Your task to perform on an android device: change the upload size in google photos Image 0: 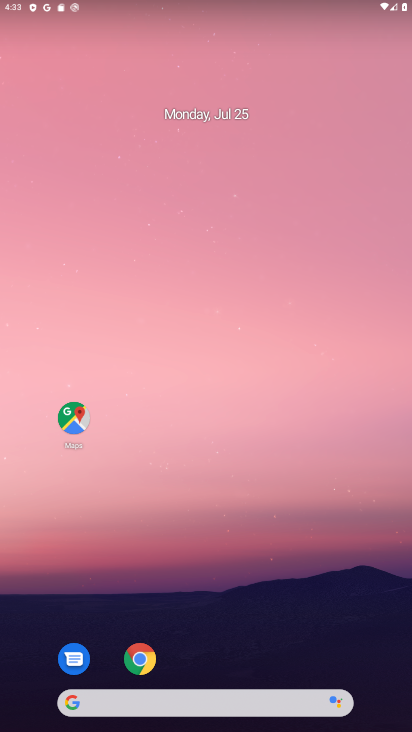
Step 0: drag from (201, 530) to (336, 138)
Your task to perform on an android device: change the upload size in google photos Image 1: 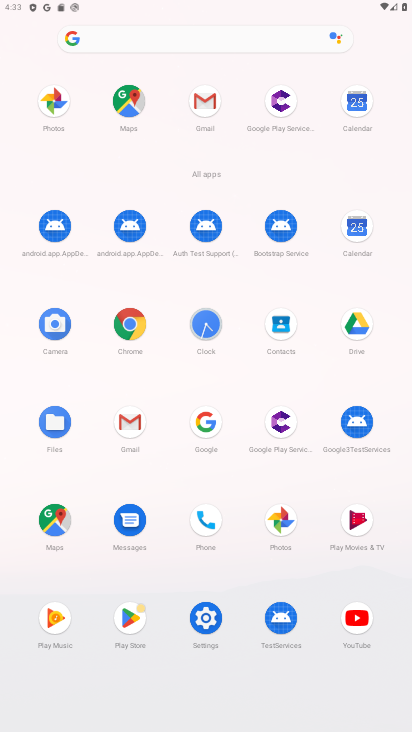
Step 1: click (273, 519)
Your task to perform on an android device: change the upload size in google photos Image 2: 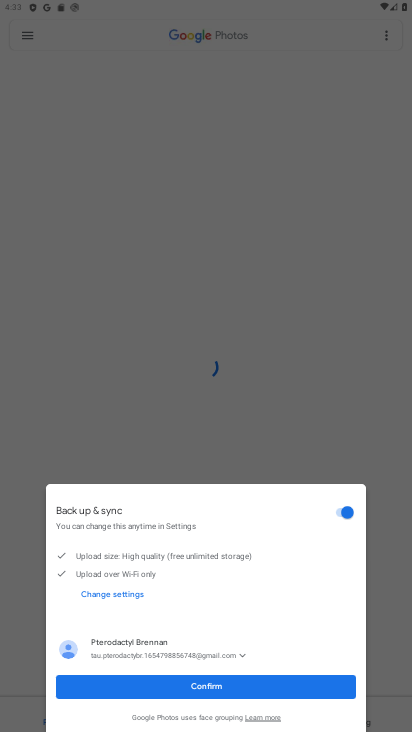
Step 2: click (198, 682)
Your task to perform on an android device: change the upload size in google photos Image 3: 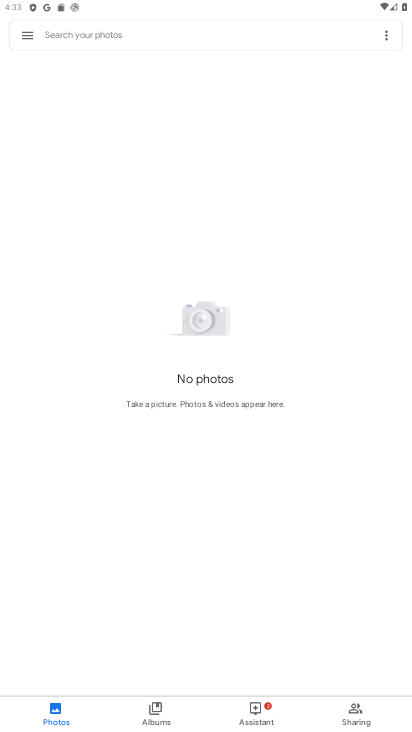
Step 3: click (32, 35)
Your task to perform on an android device: change the upload size in google photos Image 4: 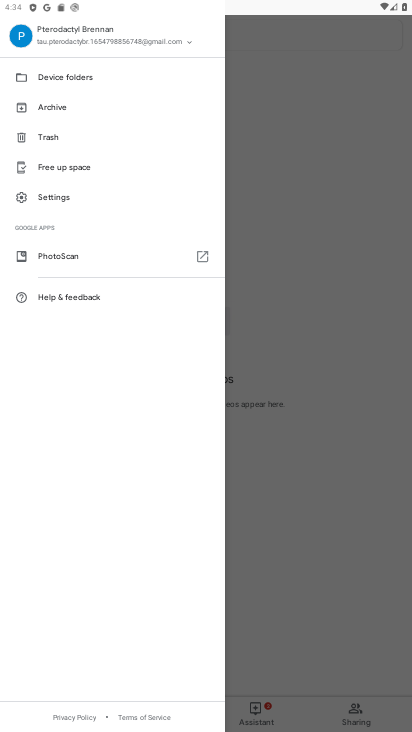
Step 4: click (47, 190)
Your task to perform on an android device: change the upload size in google photos Image 5: 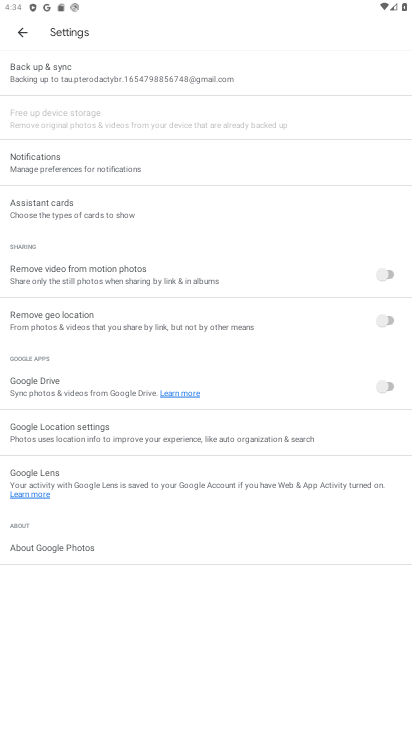
Step 5: click (60, 72)
Your task to perform on an android device: change the upload size in google photos Image 6: 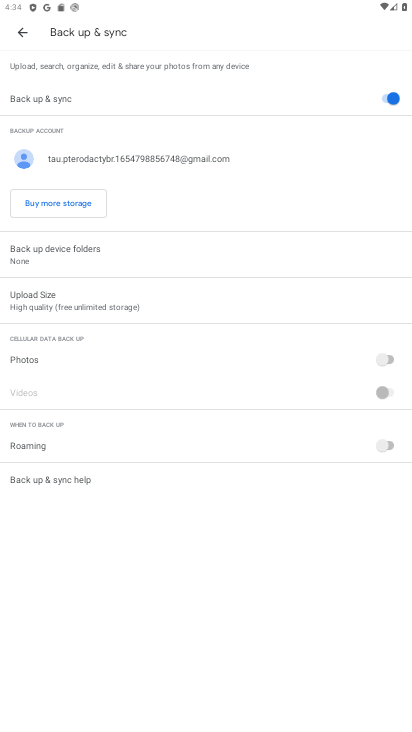
Step 6: click (46, 311)
Your task to perform on an android device: change the upload size in google photos Image 7: 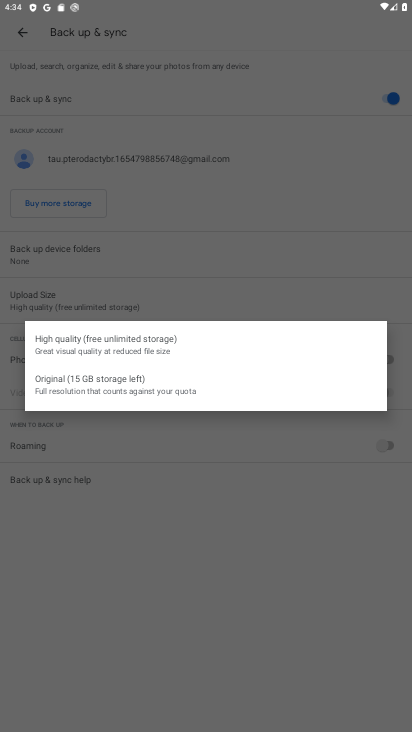
Step 7: click (28, 385)
Your task to perform on an android device: change the upload size in google photos Image 8: 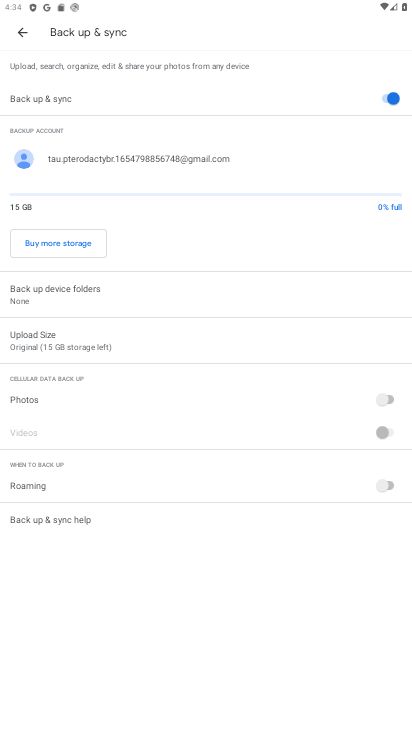
Step 8: task complete